Your task to perform on an android device: Go to internet settings Image 0: 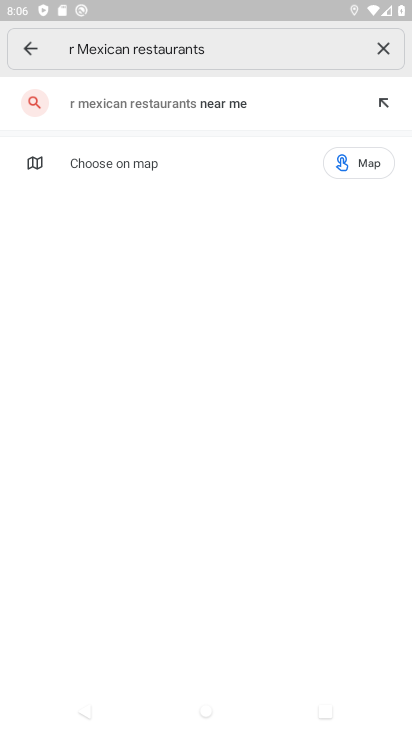
Step 0: press home button
Your task to perform on an android device: Go to internet settings Image 1: 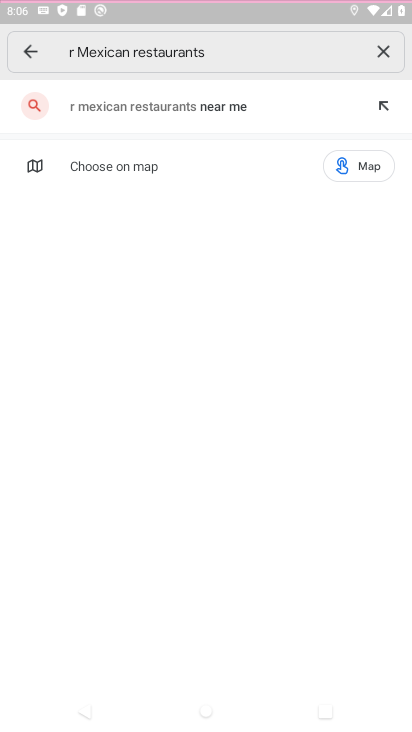
Step 1: press home button
Your task to perform on an android device: Go to internet settings Image 2: 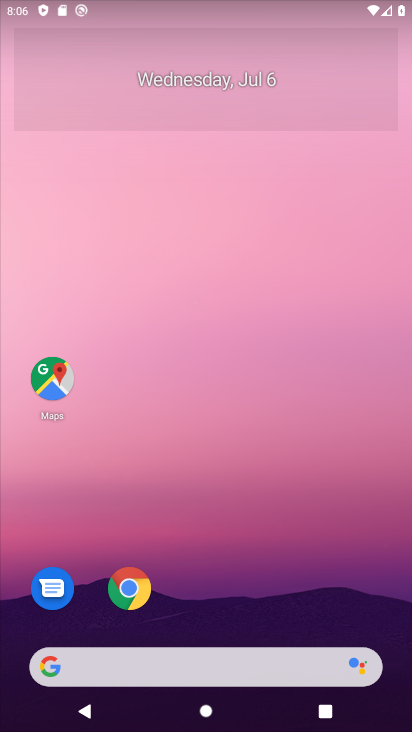
Step 2: drag from (252, 642) to (252, 237)
Your task to perform on an android device: Go to internet settings Image 3: 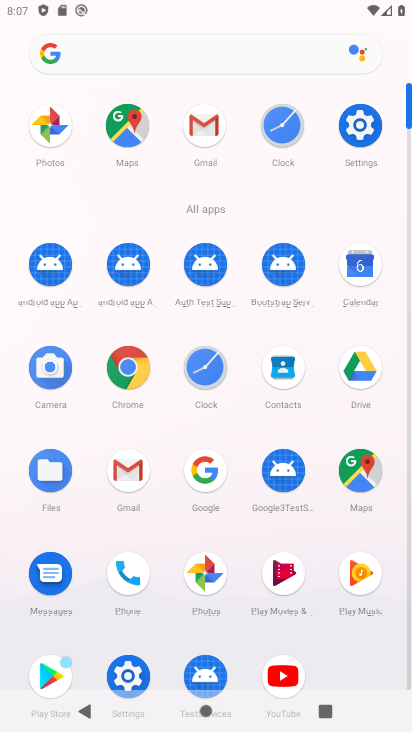
Step 3: click (360, 119)
Your task to perform on an android device: Go to internet settings Image 4: 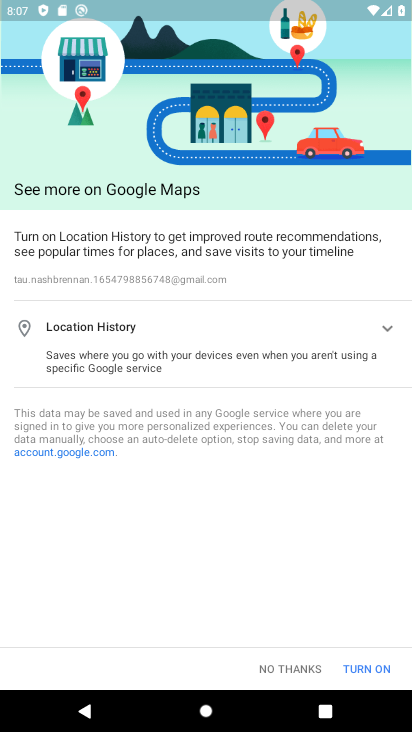
Step 4: click (312, 661)
Your task to perform on an android device: Go to internet settings Image 5: 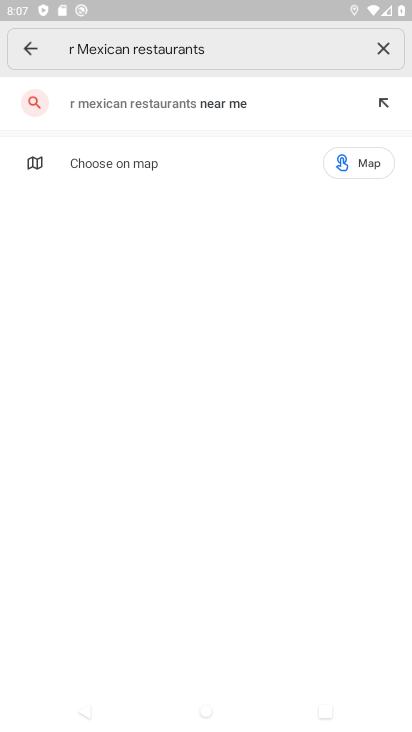
Step 5: press home button
Your task to perform on an android device: Go to internet settings Image 6: 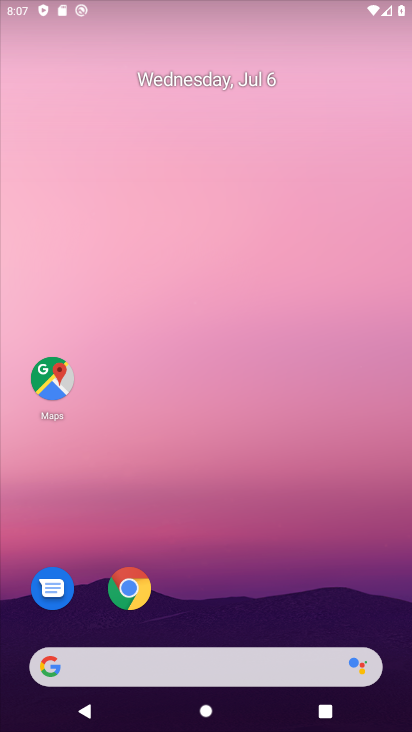
Step 6: drag from (217, 645) to (218, 306)
Your task to perform on an android device: Go to internet settings Image 7: 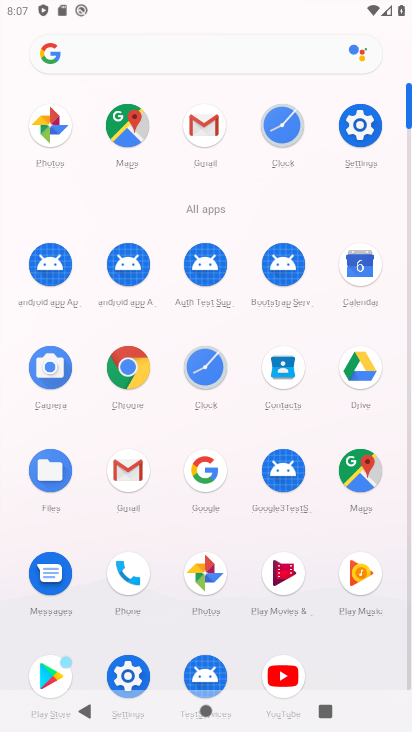
Step 7: click (369, 127)
Your task to perform on an android device: Go to internet settings Image 8: 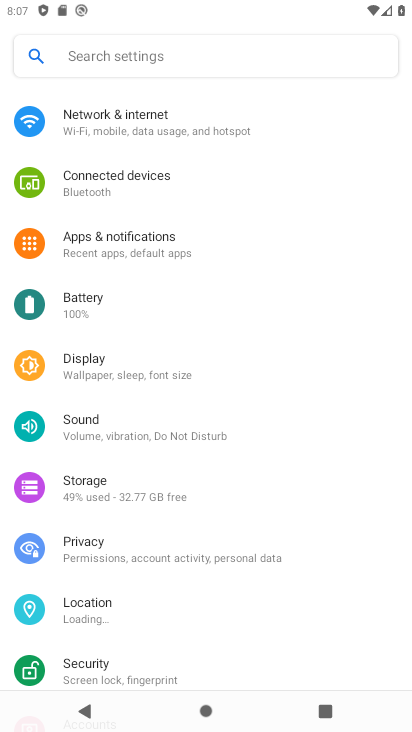
Step 8: click (159, 107)
Your task to perform on an android device: Go to internet settings Image 9: 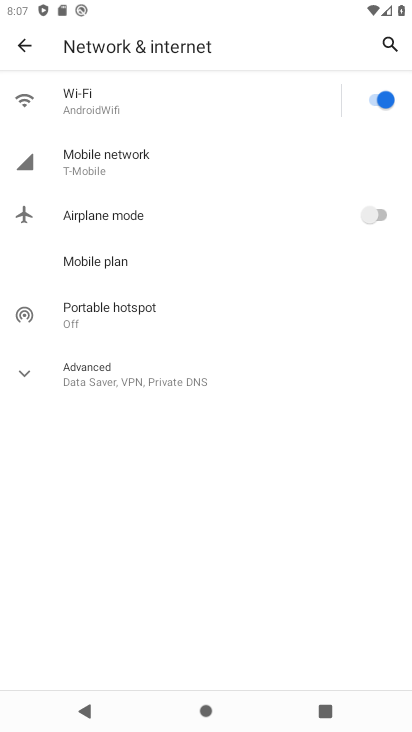
Step 9: task complete